Your task to perform on an android device: change notification settings in the gmail app Image 0: 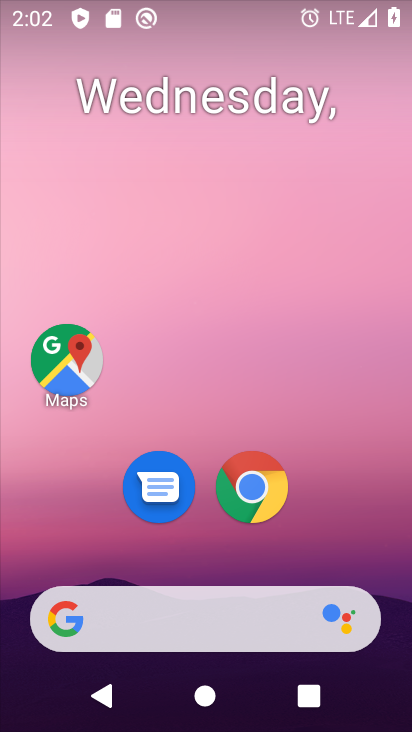
Step 0: drag from (400, 618) to (281, 38)
Your task to perform on an android device: change notification settings in the gmail app Image 1: 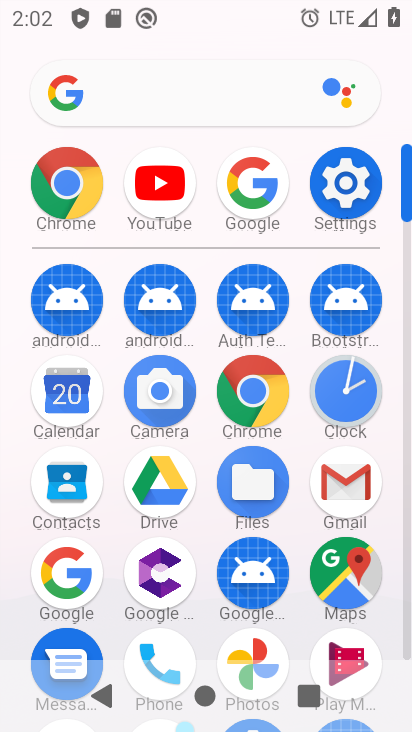
Step 1: click (347, 491)
Your task to perform on an android device: change notification settings in the gmail app Image 2: 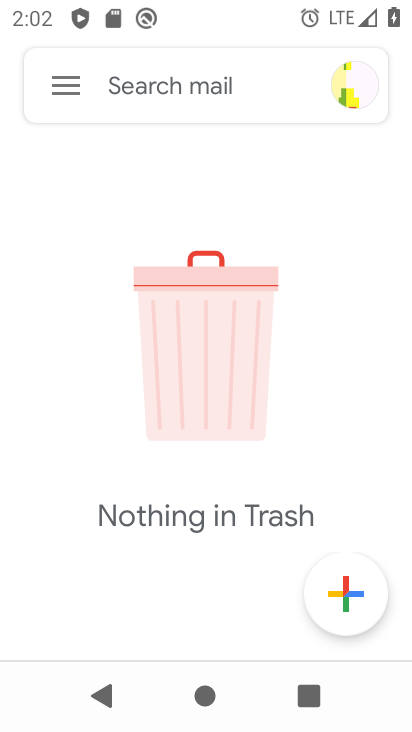
Step 2: click (69, 96)
Your task to perform on an android device: change notification settings in the gmail app Image 3: 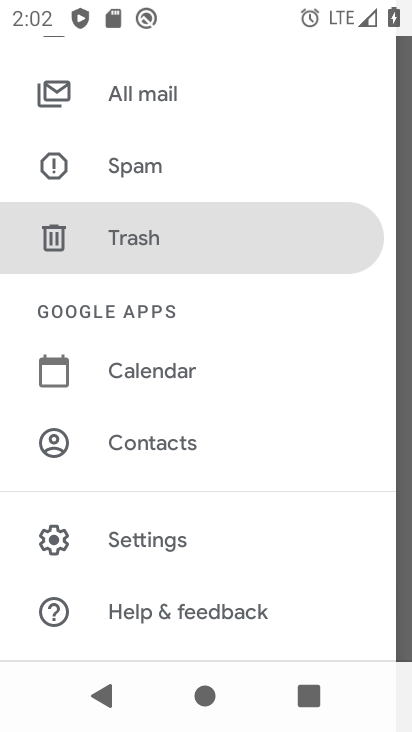
Step 3: click (185, 537)
Your task to perform on an android device: change notification settings in the gmail app Image 4: 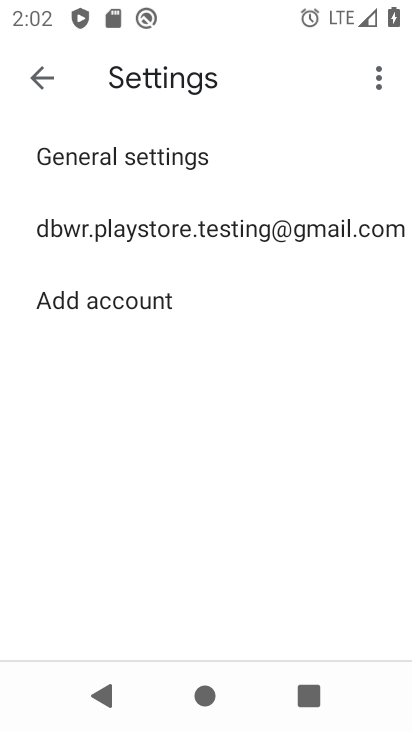
Step 4: click (180, 253)
Your task to perform on an android device: change notification settings in the gmail app Image 5: 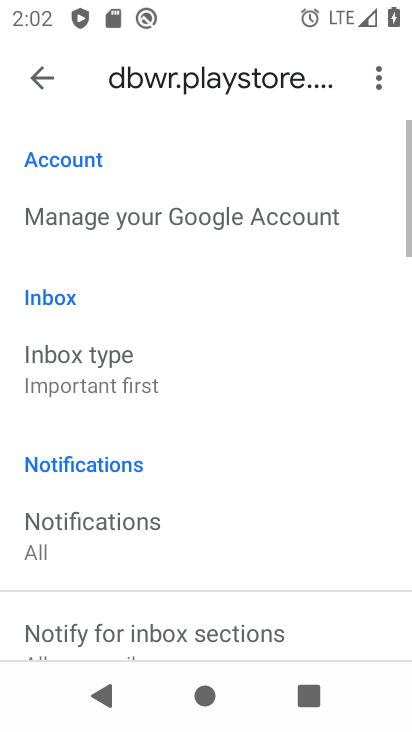
Step 5: click (145, 549)
Your task to perform on an android device: change notification settings in the gmail app Image 6: 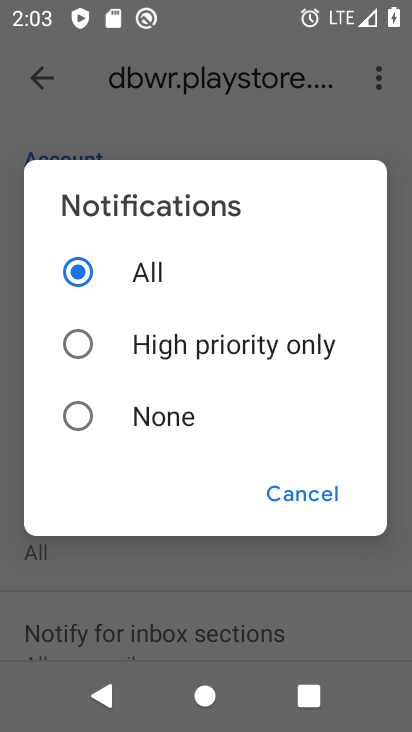
Step 6: click (154, 417)
Your task to perform on an android device: change notification settings in the gmail app Image 7: 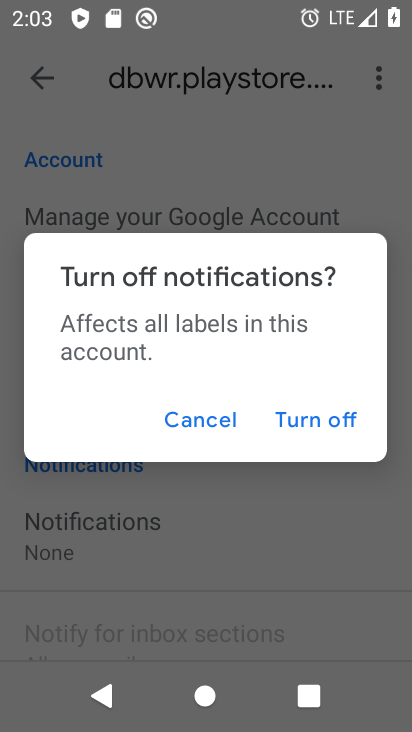
Step 7: task complete